Your task to perform on an android device: Go to internet settings Image 0: 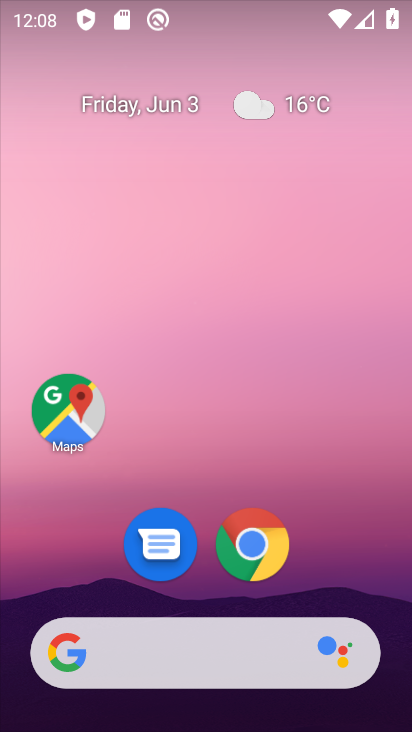
Step 0: drag from (369, 554) to (329, 88)
Your task to perform on an android device: Go to internet settings Image 1: 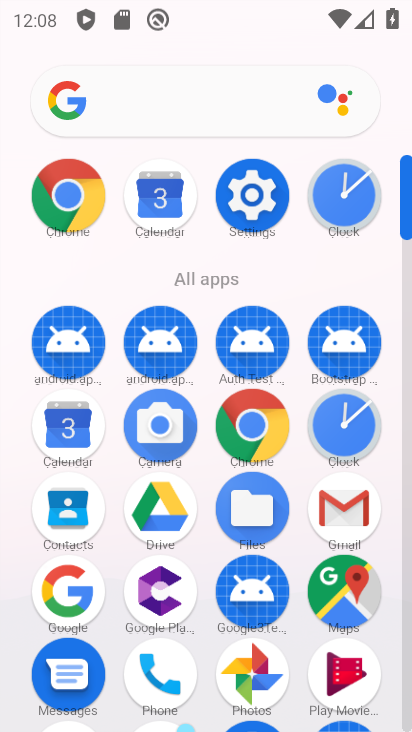
Step 1: click (263, 184)
Your task to perform on an android device: Go to internet settings Image 2: 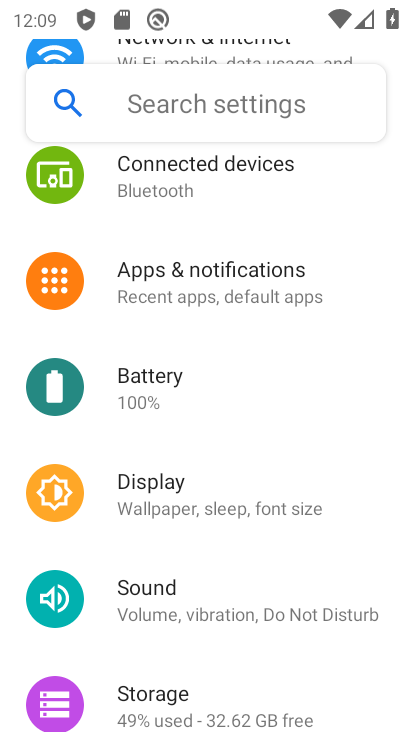
Step 2: drag from (247, 233) to (295, 731)
Your task to perform on an android device: Go to internet settings Image 3: 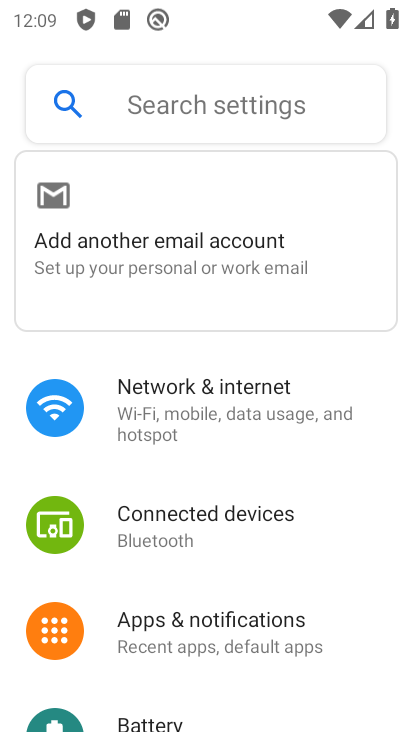
Step 3: click (229, 406)
Your task to perform on an android device: Go to internet settings Image 4: 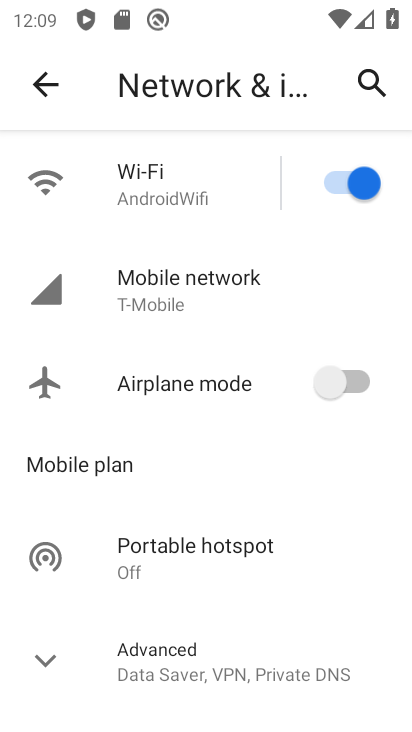
Step 4: task complete